Your task to perform on an android device: Go to notification settings Image 0: 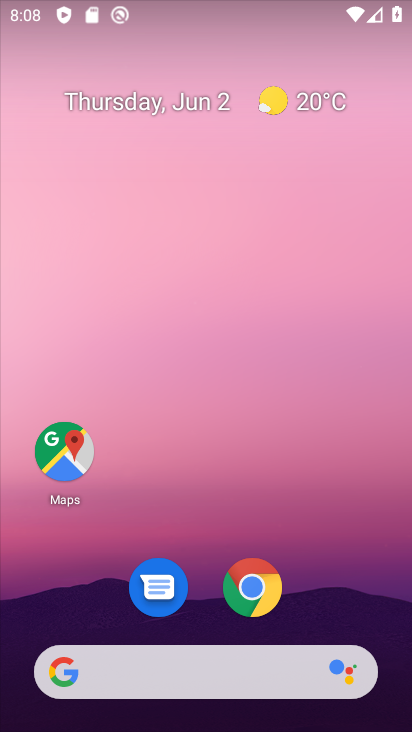
Step 0: drag from (211, 616) to (269, 15)
Your task to perform on an android device: Go to notification settings Image 1: 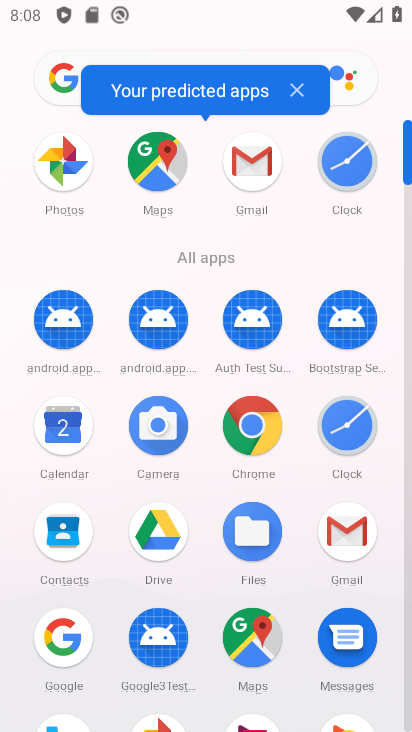
Step 1: drag from (201, 643) to (239, 317)
Your task to perform on an android device: Go to notification settings Image 2: 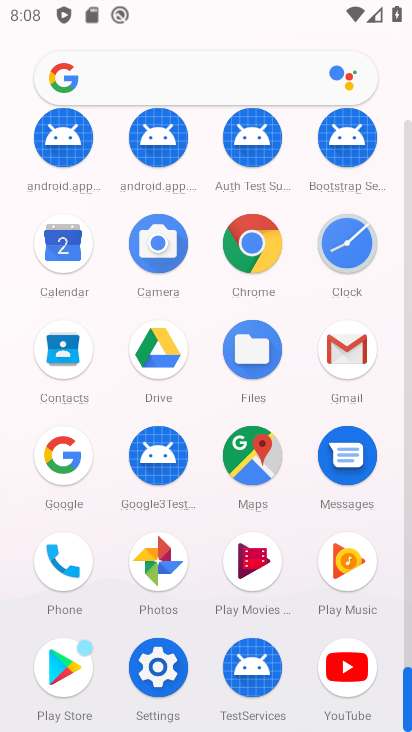
Step 2: click (155, 673)
Your task to perform on an android device: Go to notification settings Image 3: 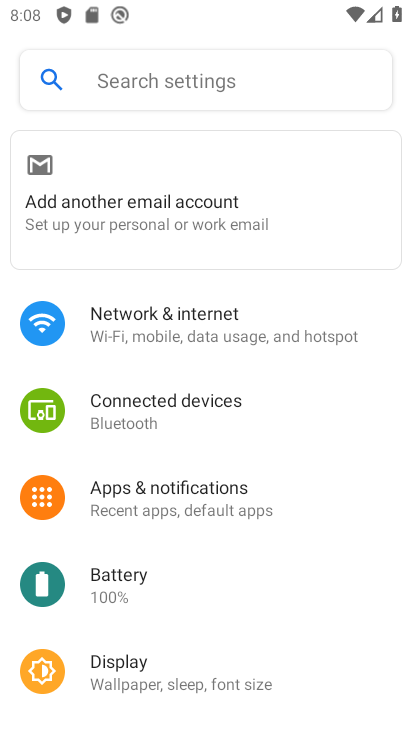
Step 3: click (154, 497)
Your task to perform on an android device: Go to notification settings Image 4: 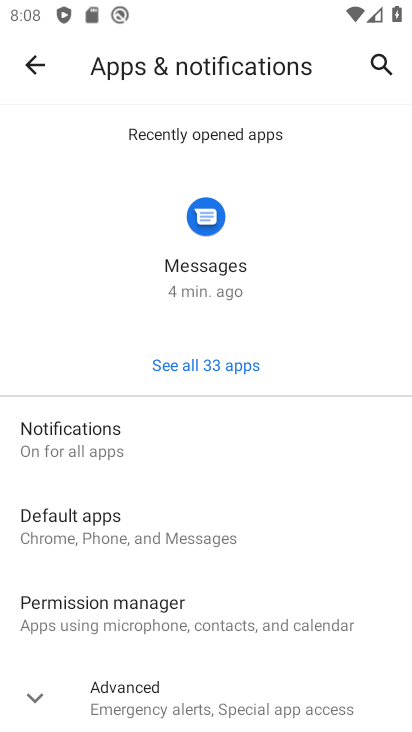
Step 4: task complete